Your task to perform on an android device: Go to eBay Image 0: 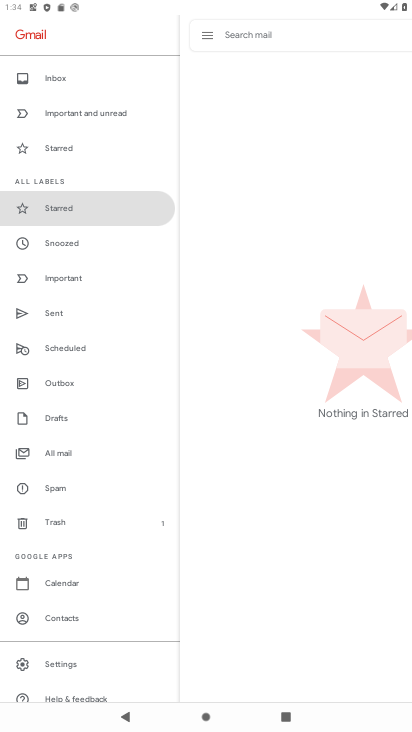
Step 0: drag from (73, 573) to (114, 292)
Your task to perform on an android device: Go to eBay Image 1: 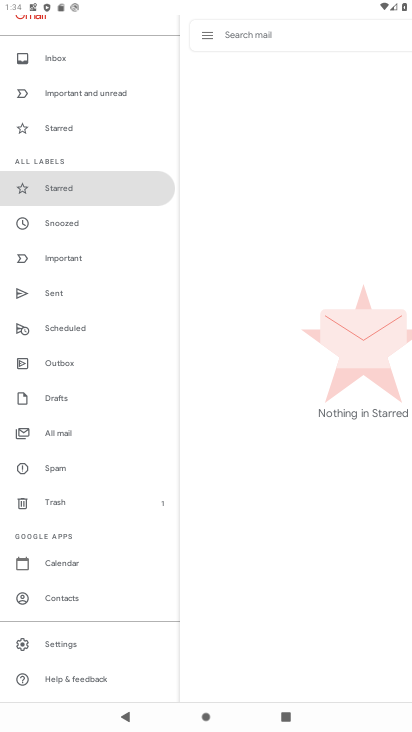
Step 1: press home button
Your task to perform on an android device: Go to eBay Image 2: 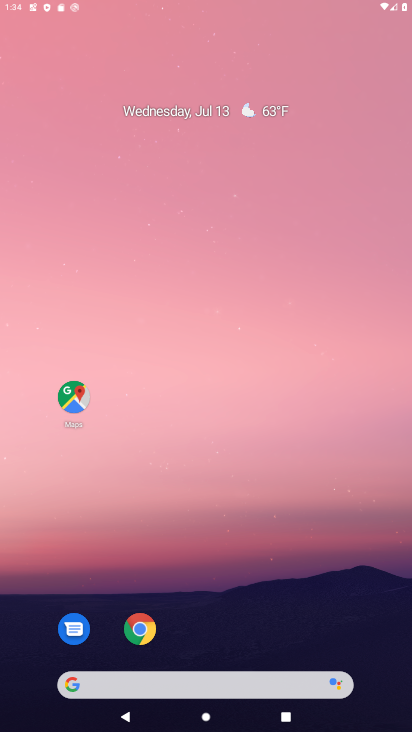
Step 2: drag from (206, 594) to (249, 214)
Your task to perform on an android device: Go to eBay Image 3: 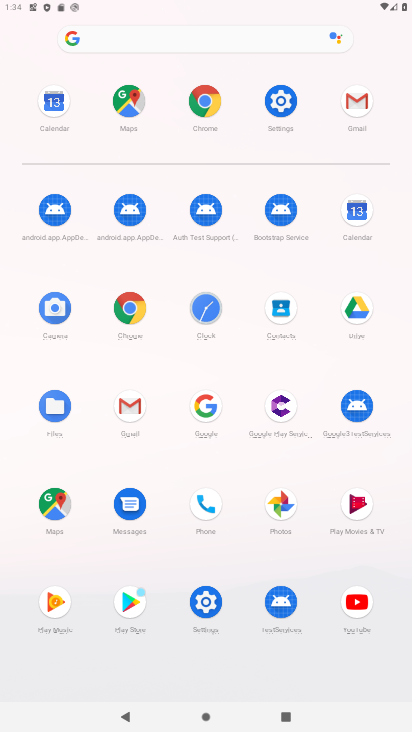
Step 3: click (159, 34)
Your task to perform on an android device: Go to eBay Image 4: 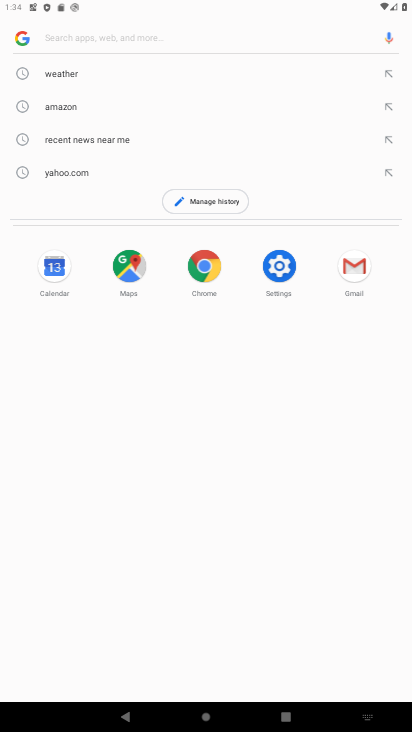
Step 4: type "ebay"
Your task to perform on an android device: Go to eBay Image 5: 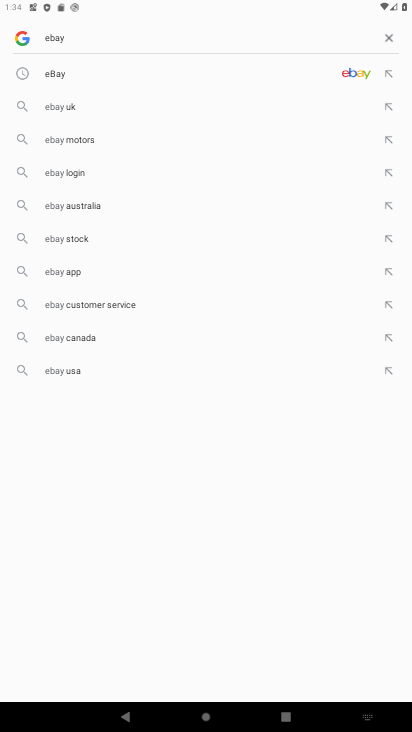
Step 5: click (91, 73)
Your task to perform on an android device: Go to eBay Image 6: 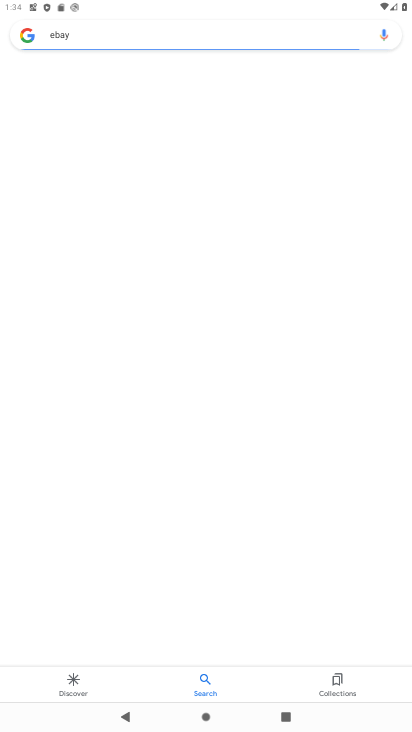
Step 6: task complete